Your task to perform on an android device: Go to Maps Image 0: 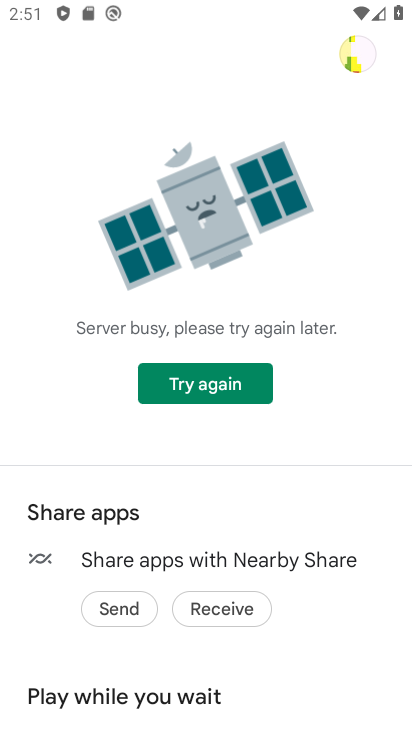
Step 0: press home button
Your task to perform on an android device: Go to Maps Image 1: 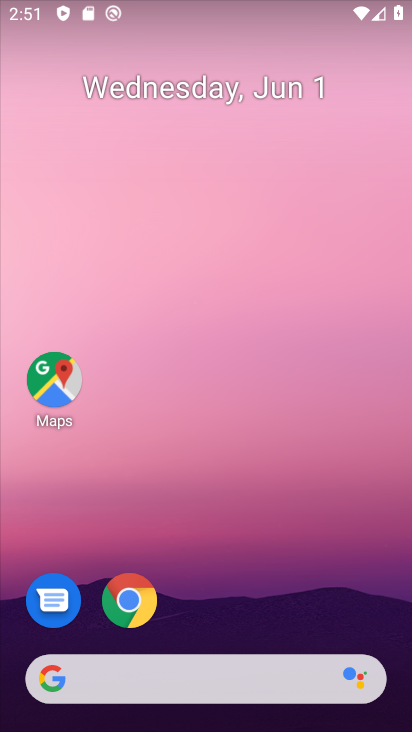
Step 1: click (38, 385)
Your task to perform on an android device: Go to Maps Image 2: 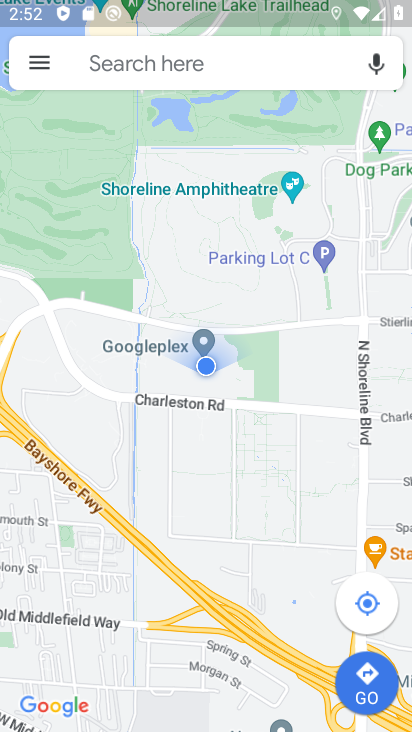
Step 2: task complete